Your task to perform on an android device: Open Chrome and go to settings Image 0: 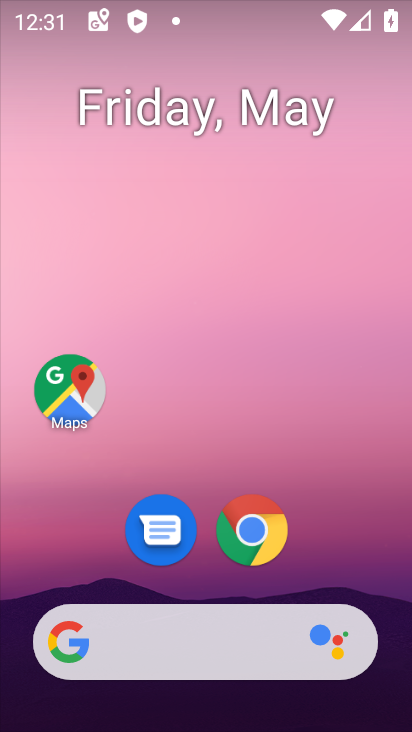
Step 0: click (253, 529)
Your task to perform on an android device: Open Chrome and go to settings Image 1: 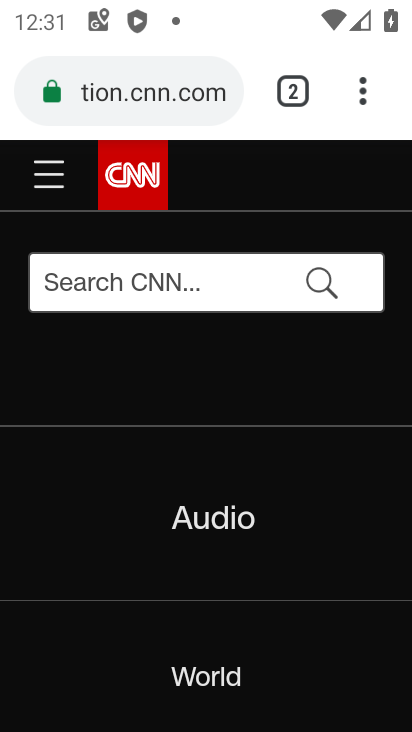
Step 1: click (362, 90)
Your task to perform on an android device: Open Chrome and go to settings Image 2: 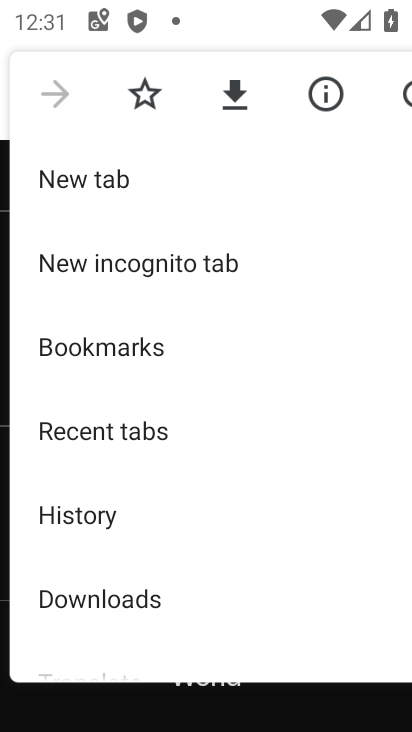
Step 2: drag from (119, 391) to (202, 292)
Your task to perform on an android device: Open Chrome and go to settings Image 3: 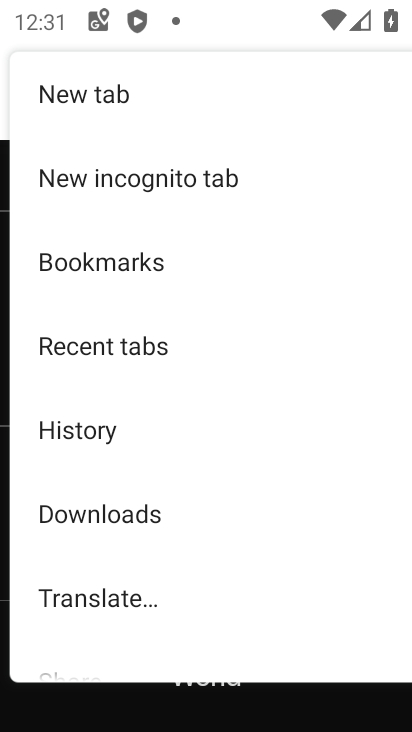
Step 3: drag from (104, 471) to (185, 375)
Your task to perform on an android device: Open Chrome and go to settings Image 4: 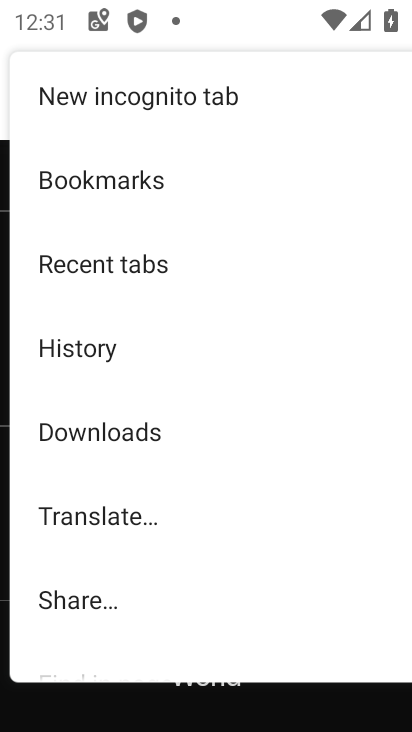
Step 4: drag from (96, 478) to (180, 385)
Your task to perform on an android device: Open Chrome and go to settings Image 5: 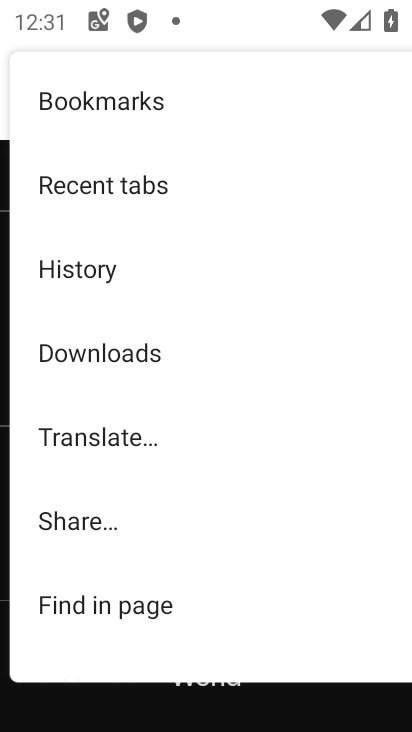
Step 5: drag from (95, 487) to (181, 387)
Your task to perform on an android device: Open Chrome and go to settings Image 6: 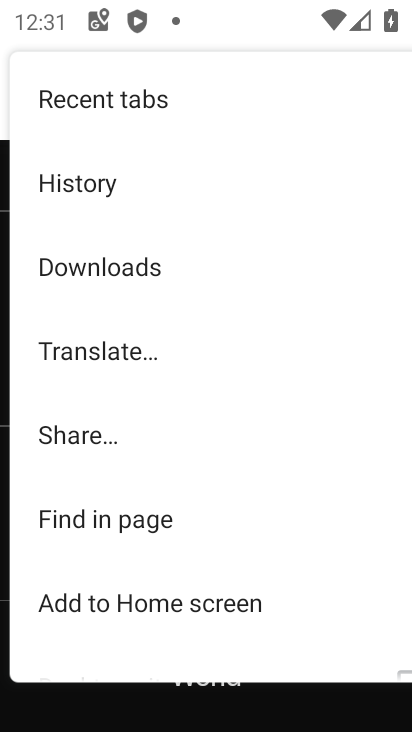
Step 6: drag from (97, 479) to (162, 386)
Your task to perform on an android device: Open Chrome and go to settings Image 7: 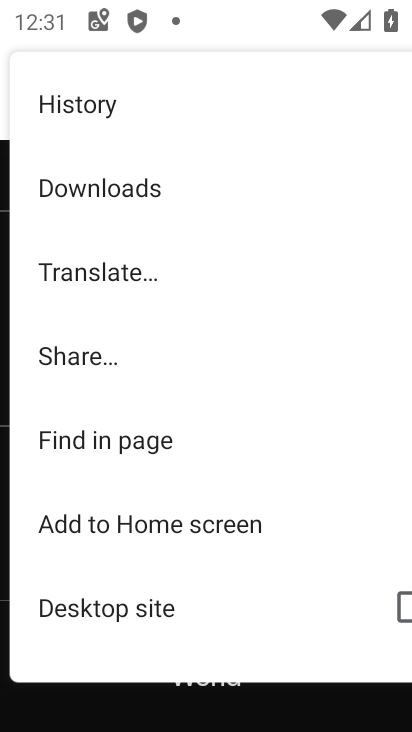
Step 7: drag from (92, 479) to (177, 377)
Your task to perform on an android device: Open Chrome and go to settings Image 8: 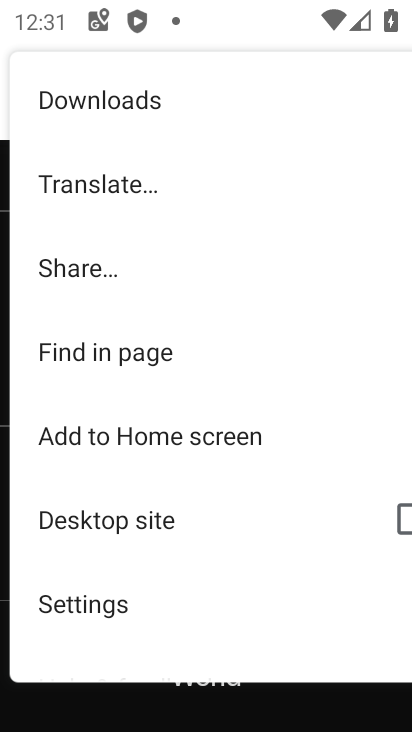
Step 8: drag from (103, 489) to (224, 335)
Your task to perform on an android device: Open Chrome and go to settings Image 9: 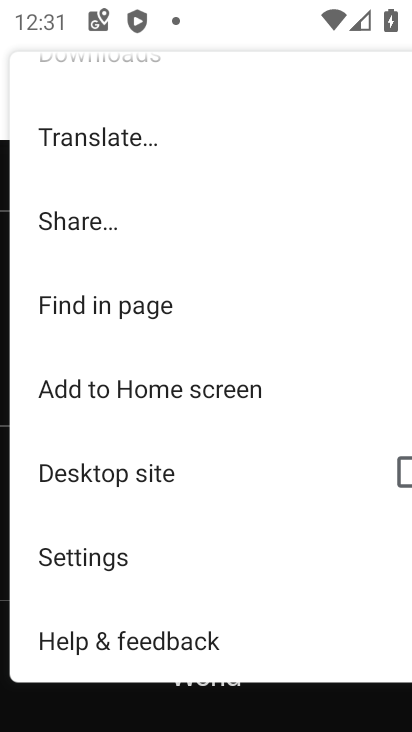
Step 9: click (112, 564)
Your task to perform on an android device: Open Chrome and go to settings Image 10: 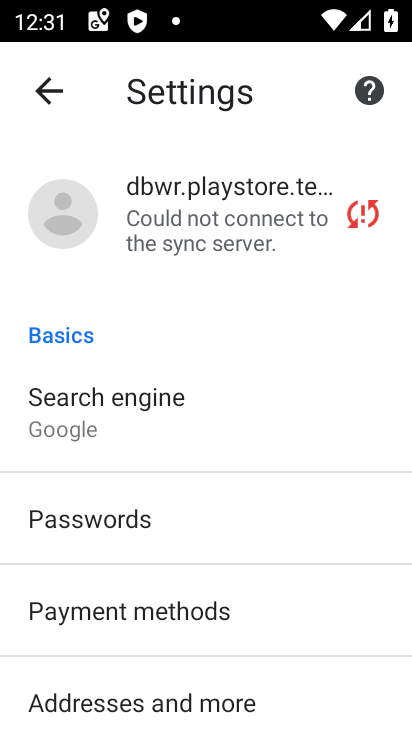
Step 10: task complete